Your task to perform on an android device: Open display settings Image 0: 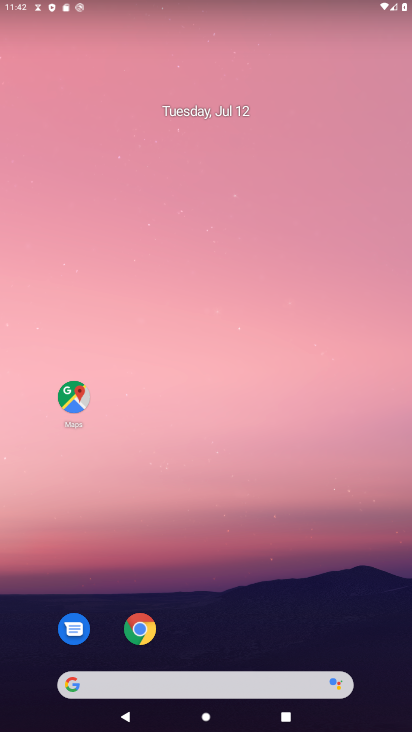
Step 0: drag from (318, 587) to (270, 79)
Your task to perform on an android device: Open display settings Image 1: 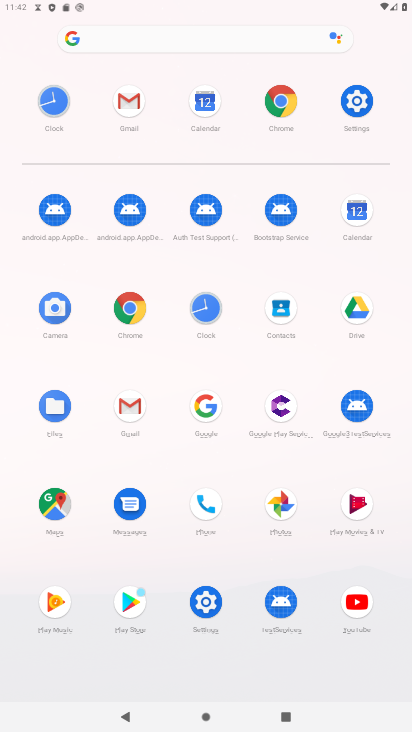
Step 1: click (361, 95)
Your task to perform on an android device: Open display settings Image 2: 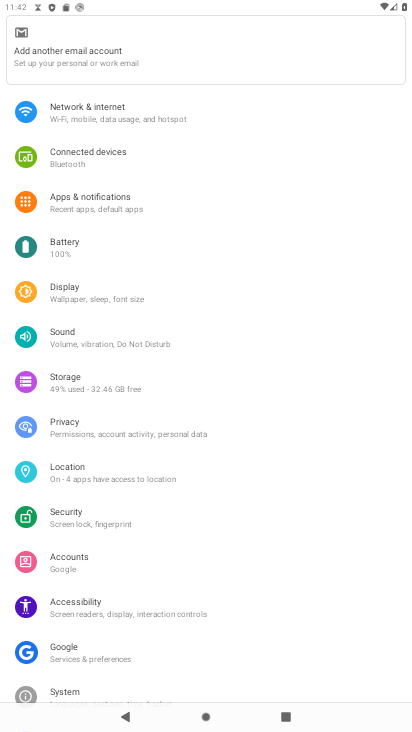
Step 2: click (124, 298)
Your task to perform on an android device: Open display settings Image 3: 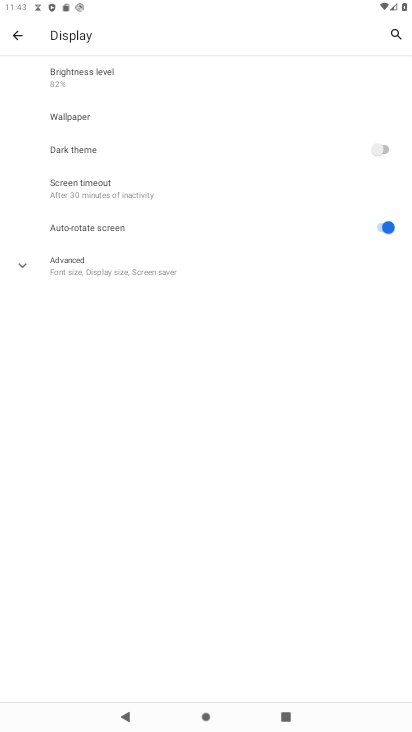
Step 3: task complete